Your task to perform on an android device: turn smart compose on in the gmail app Image 0: 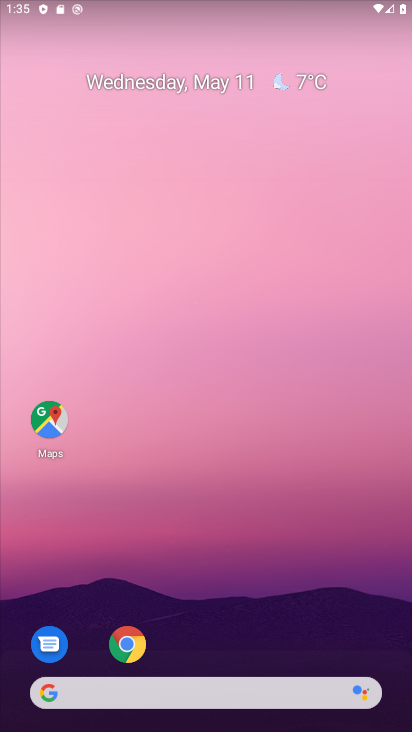
Step 0: drag from (166, 664) to (323, 100)
Your task to perform on an android device: turn smart compose on in the gmail app Image 1: 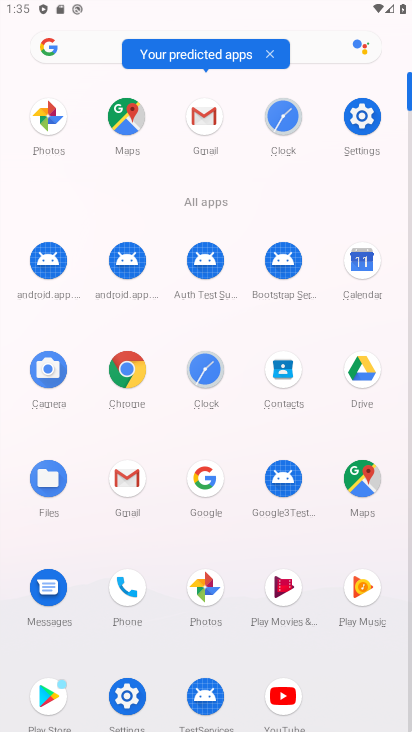
Step 1: click (190, 138)
Your task to perform on an android device: turn smart compose on in the gmail app Image 2: 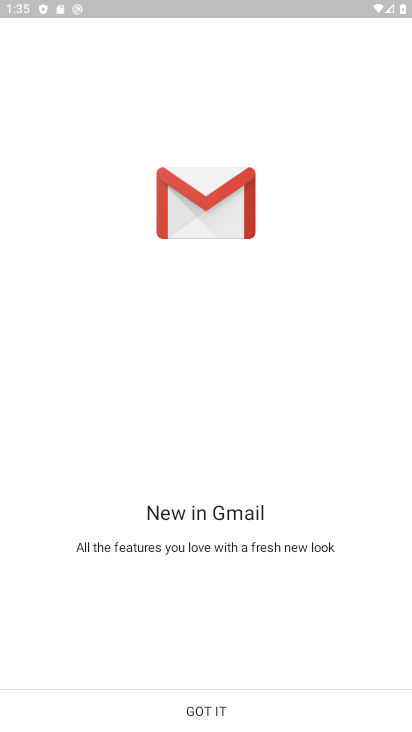
Step 2: click (193, 709)
Your task to perform on an android device: turn smart compose on in the gmail app Image 3: 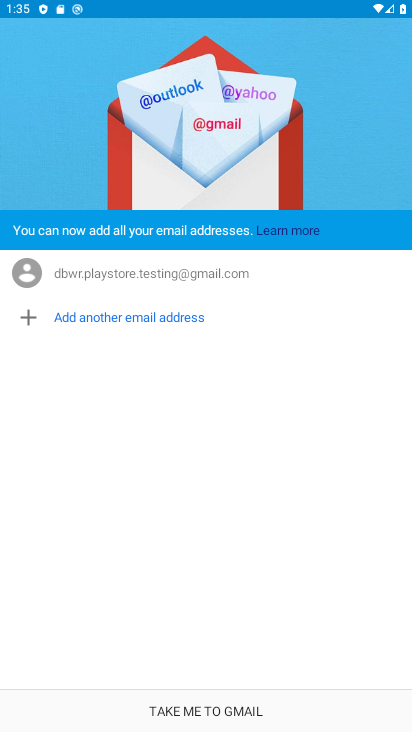
Step 3: click (193, 709)
Your task to perform on an android device: turn smart compose on in the gmail app Image 4: 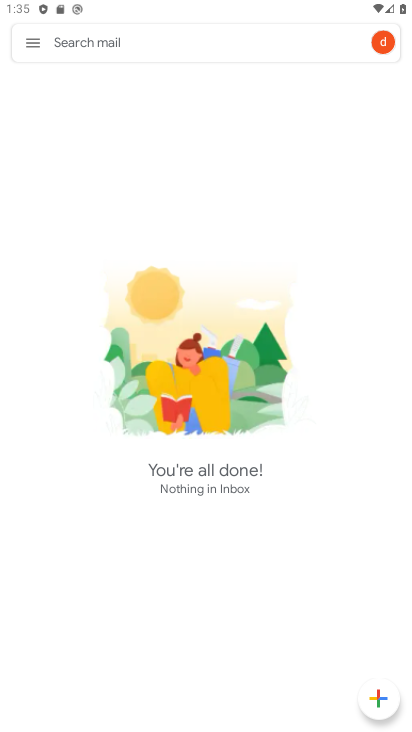
Step 4: task complete